Your task to perform on an android device: open app "Clock" Image 0: 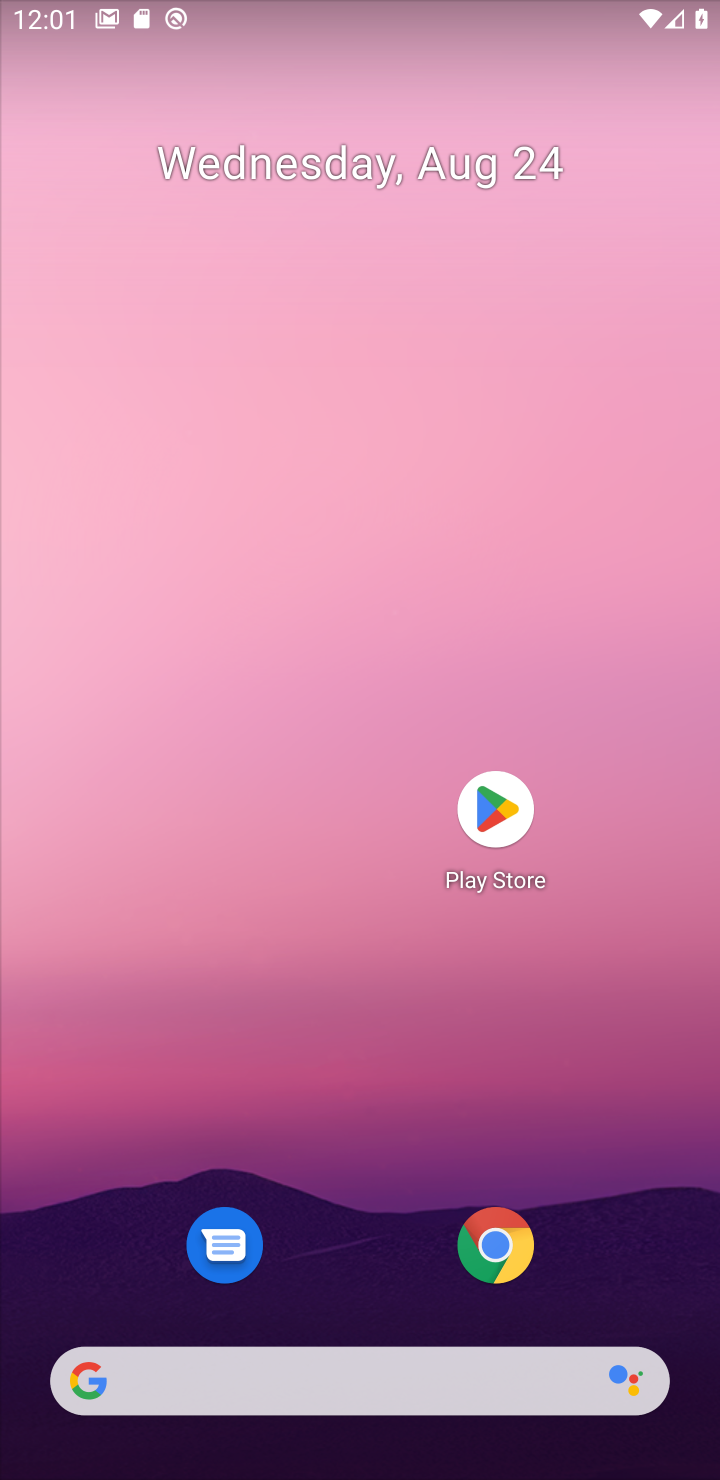
Step 0: click (499, 809)
Your task to perform on an android device: open app "Clock" Image 1: 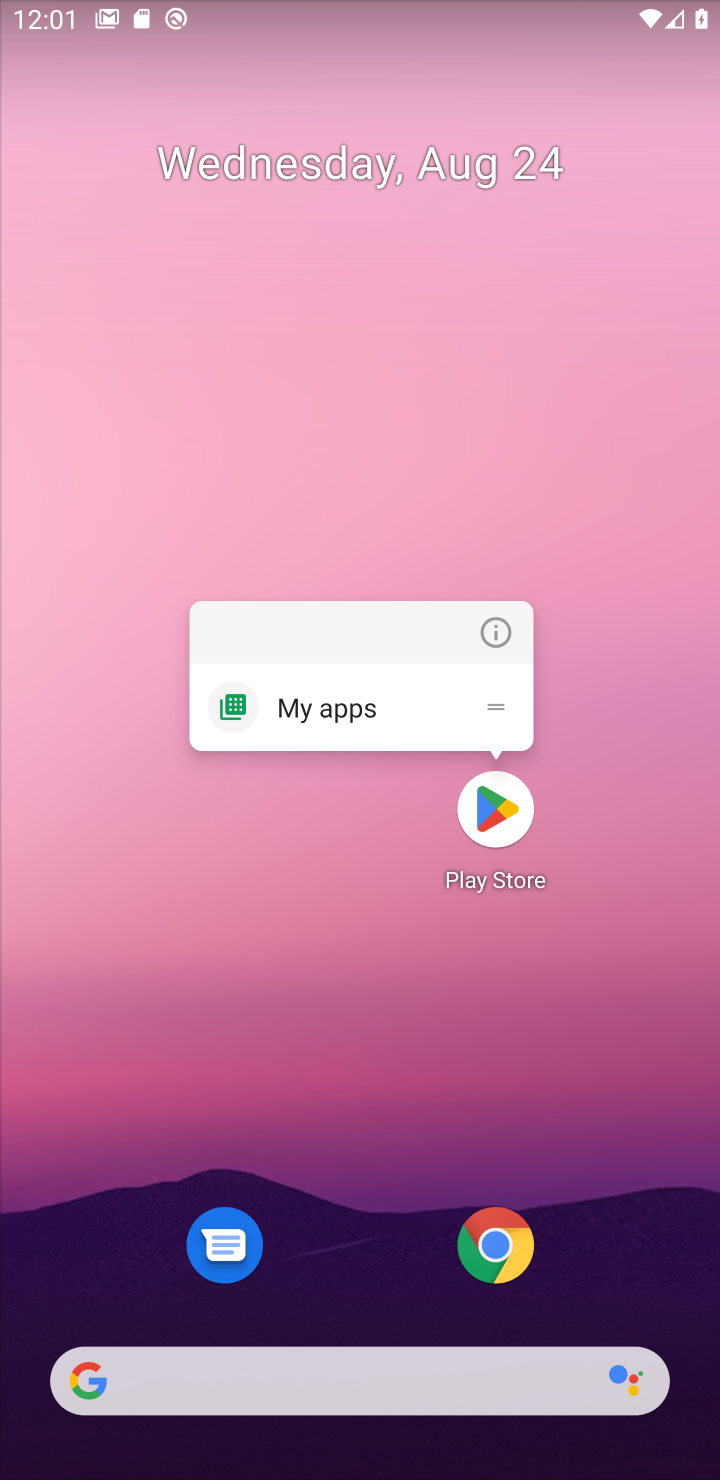
Step 1: click (499, 813)
Your task to perform on an android device: open app "Clock" Image 2: 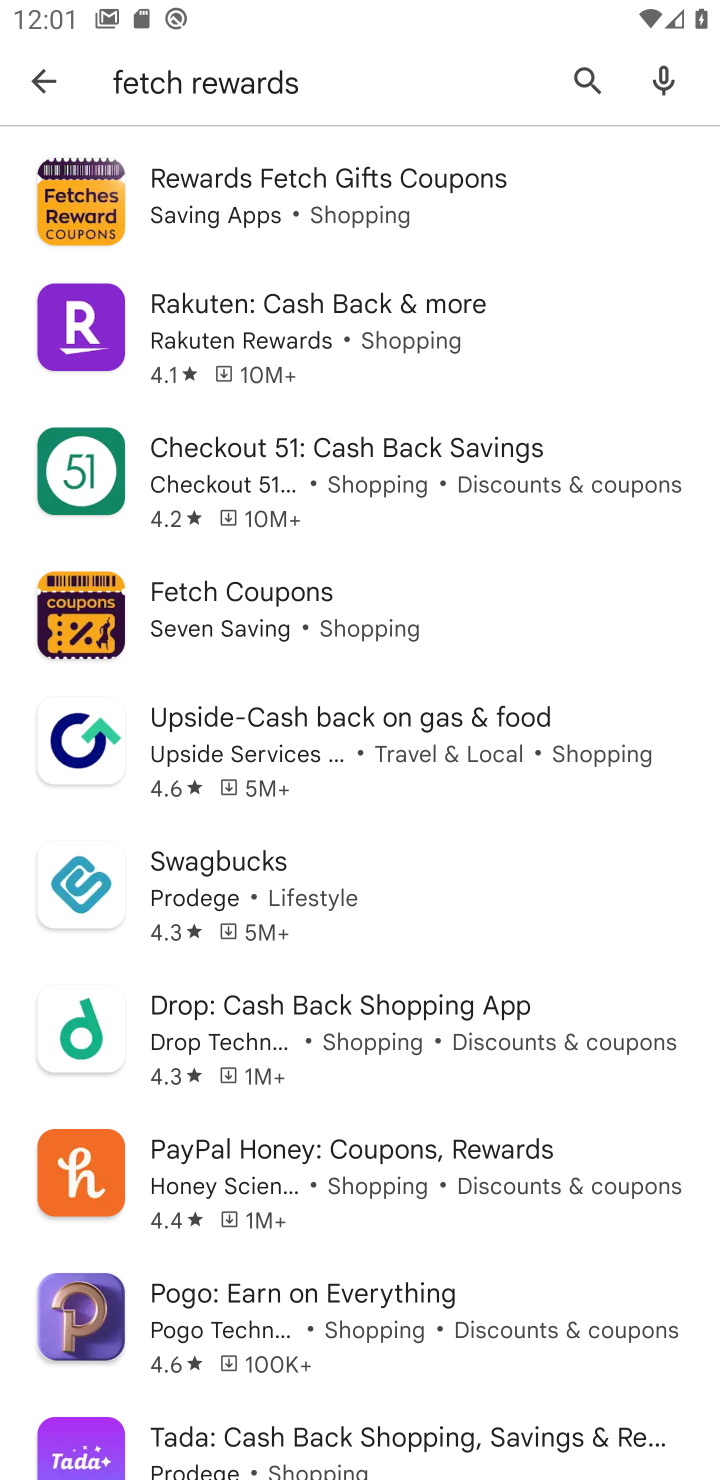
Step 2: click (584, 63)
Your task to perform on an android device: open app "Clock" Image 3: 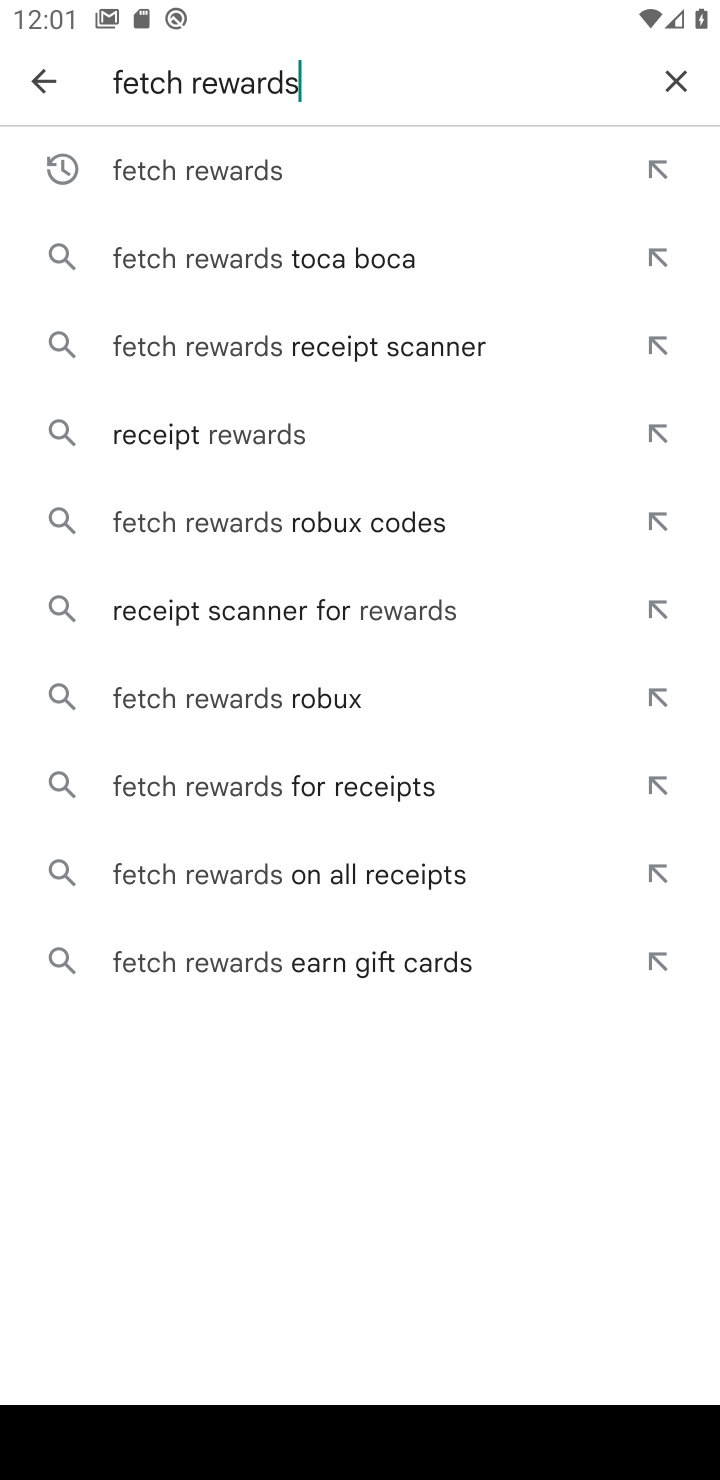
Step 3: click (670, 75)
Your task to perform on an android device: open app "Clock" Image 4: 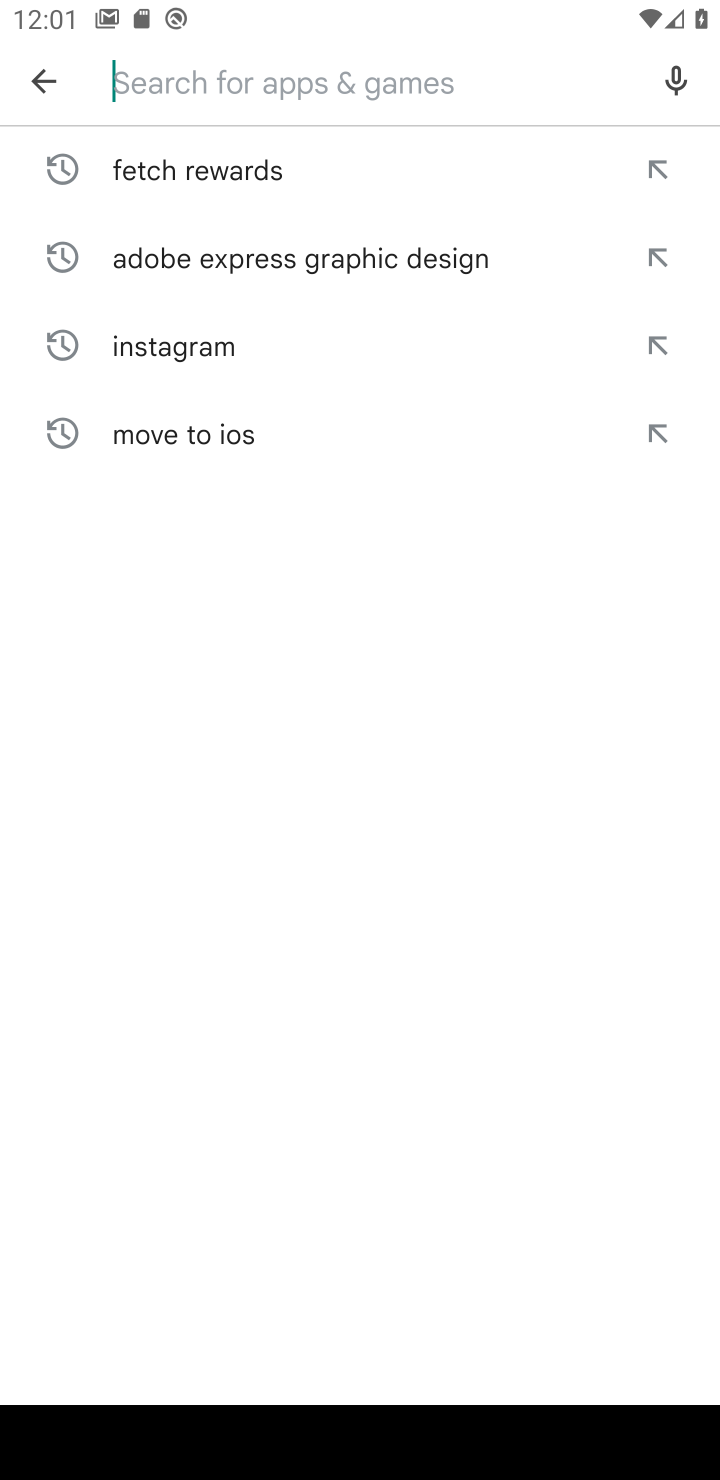
Step 4: type "Clock"
Your task to perform on an android device: open app "Clock" Image 5: 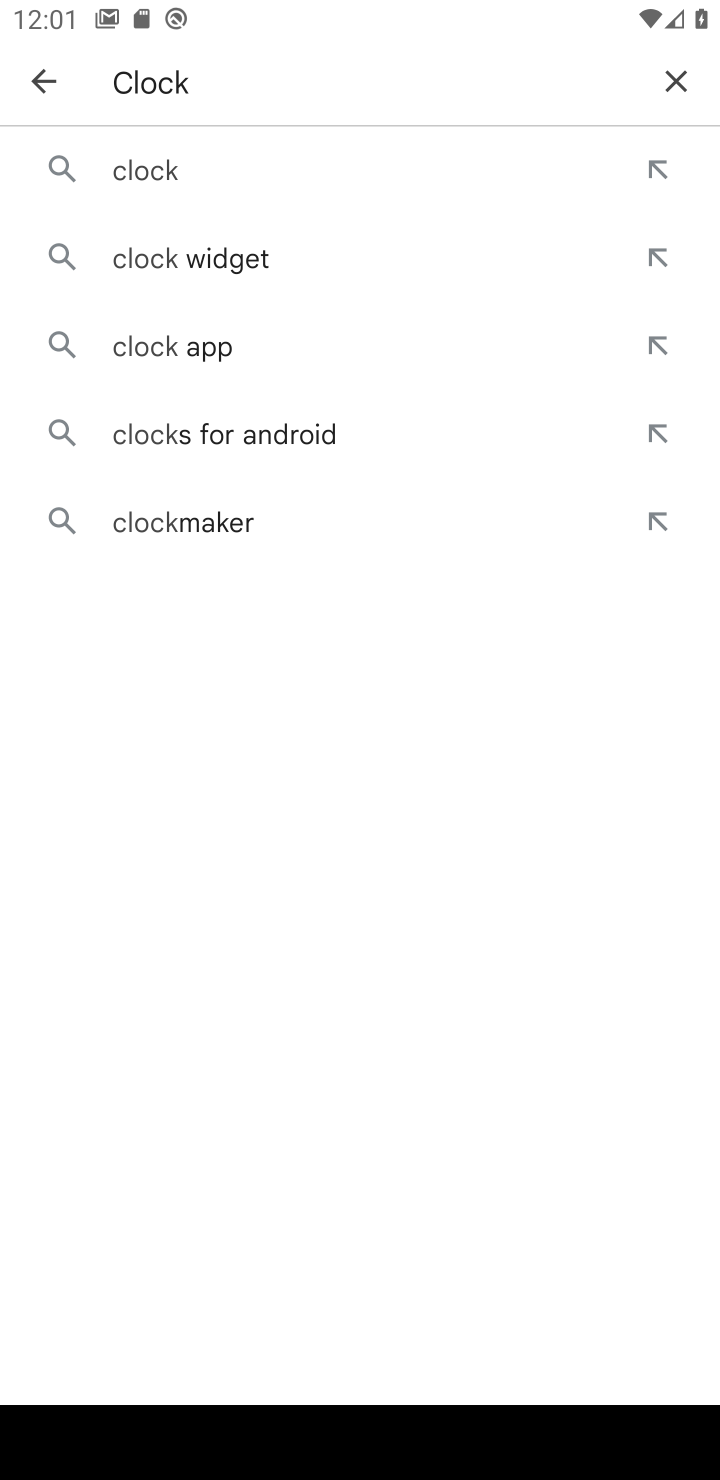
Step 5: click (136, 163)
Your task to perform on an android device: open app "Clock" Image 6: 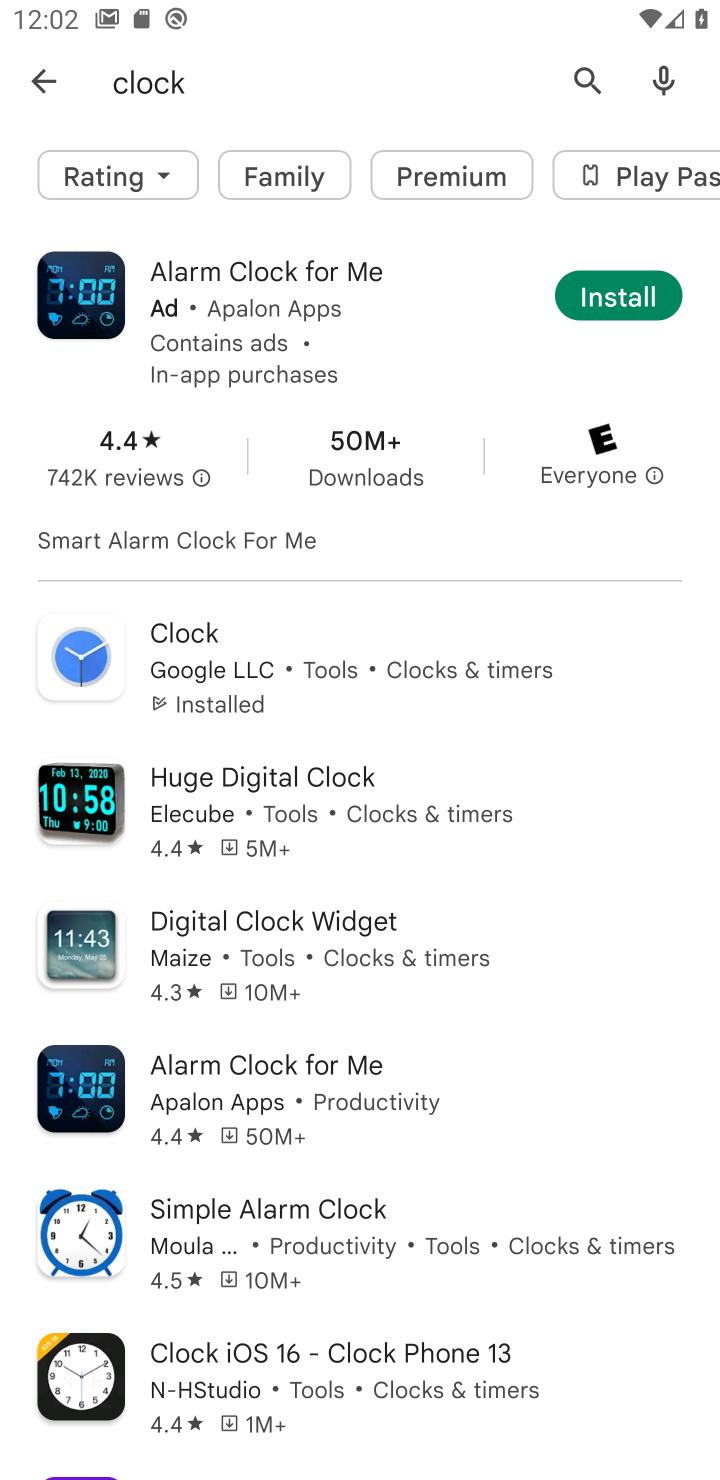
Step 6: click (218, 663)
Your task to perform on an android device: open app "Clock" Image 7: 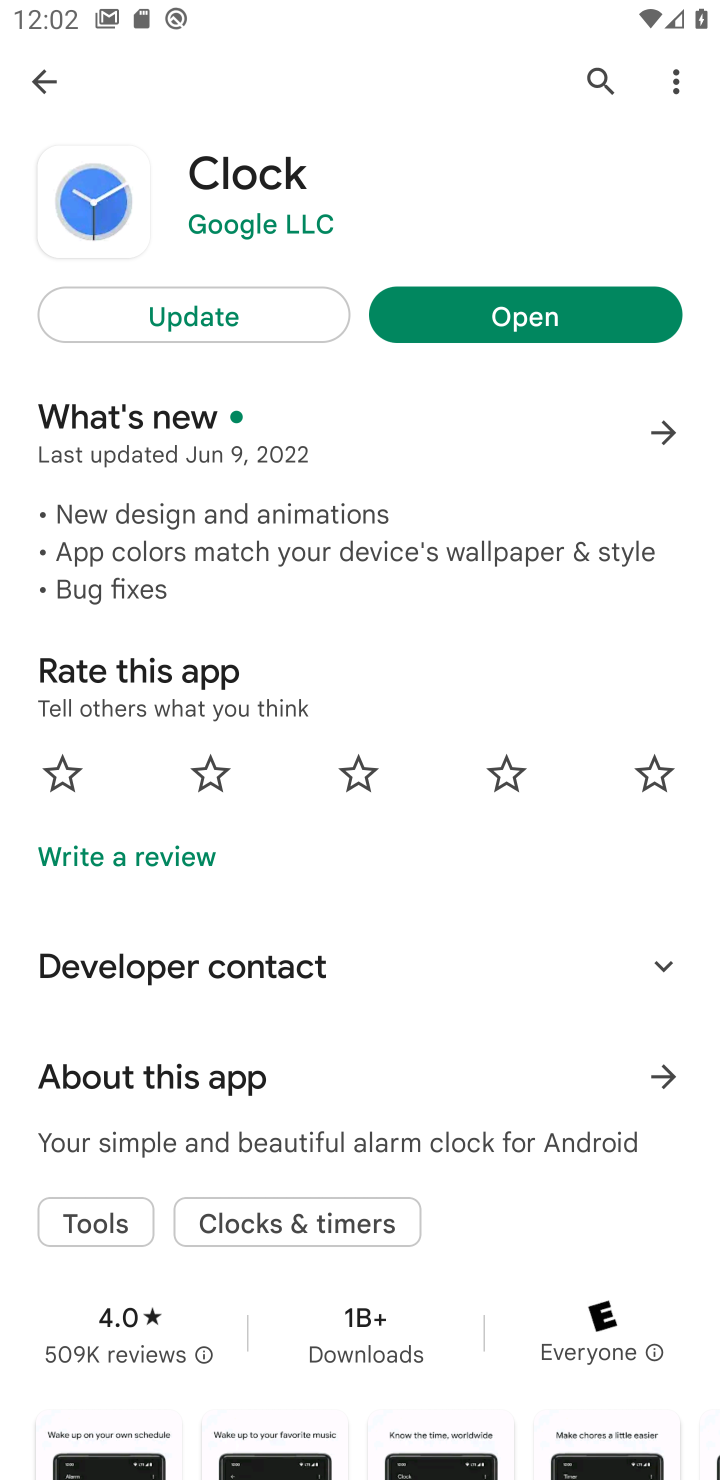
Step 7: click (512, 320)
Your task to perform on an android device: open app "Clock" Image 8: 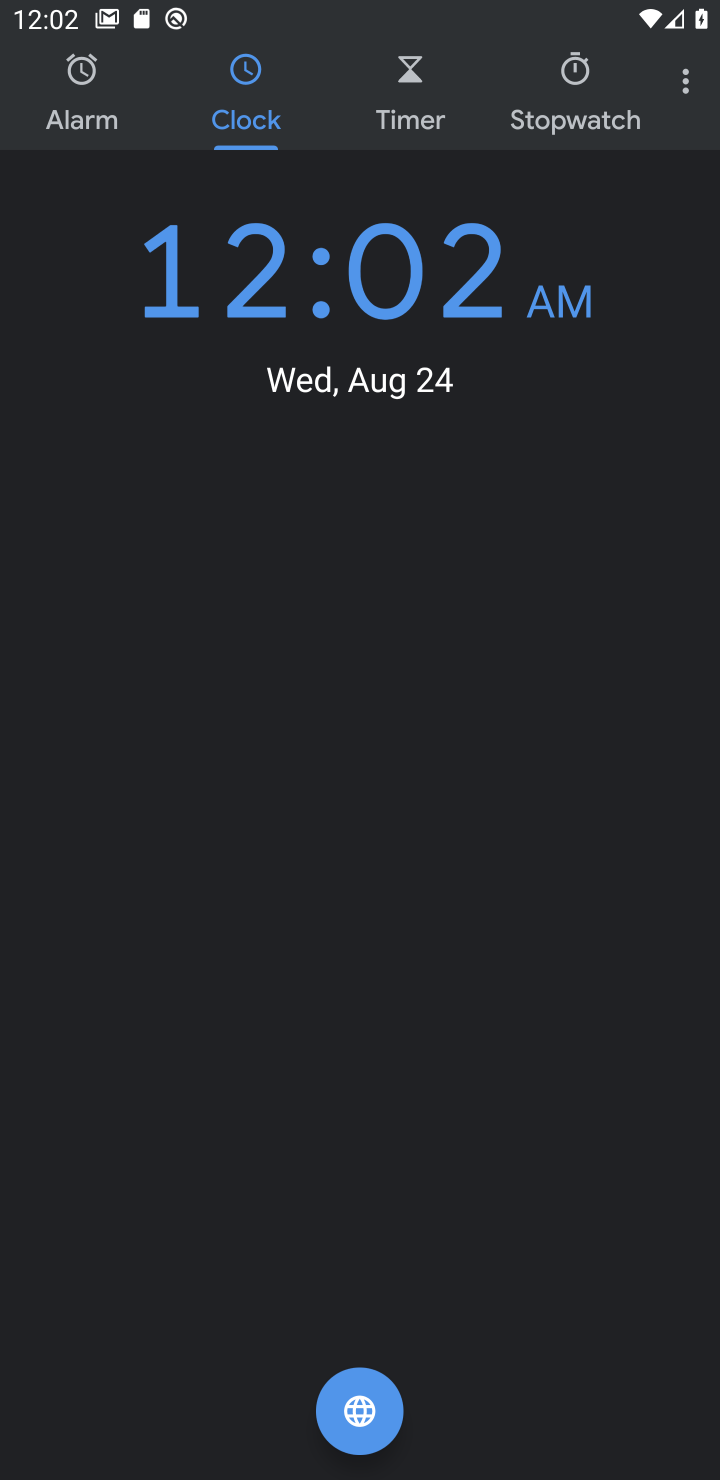
Step 8: task complete